Your task to perform on an android device: turn notification dots on Image 0: 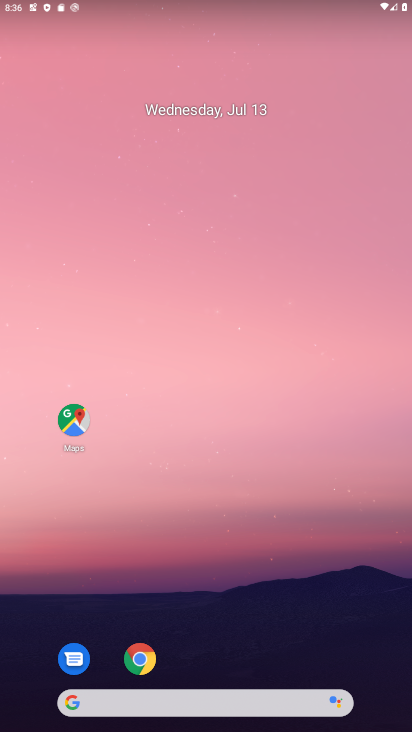
Step 0: drag from (39, 602) to (280, 37)
Your task to perform on an android device: turn notification dots on Image 1: 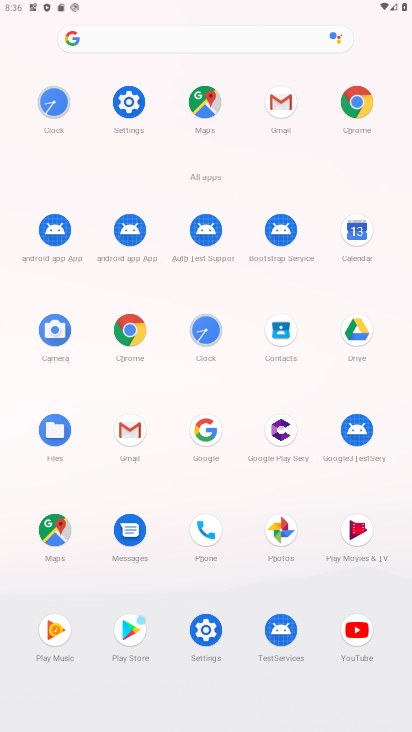
Step 1: click (135, 110)
Your task to perform on an android device: turn notification dots on Image 2: 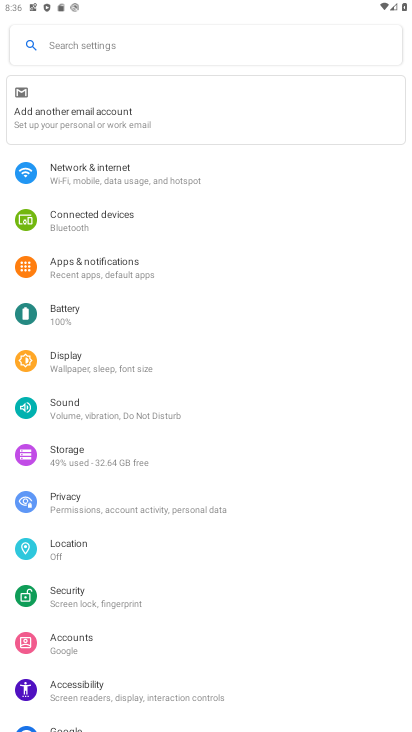
Step 2: click (94, 283)
Your task to perform on an android device: turn notification dots on Image 3: 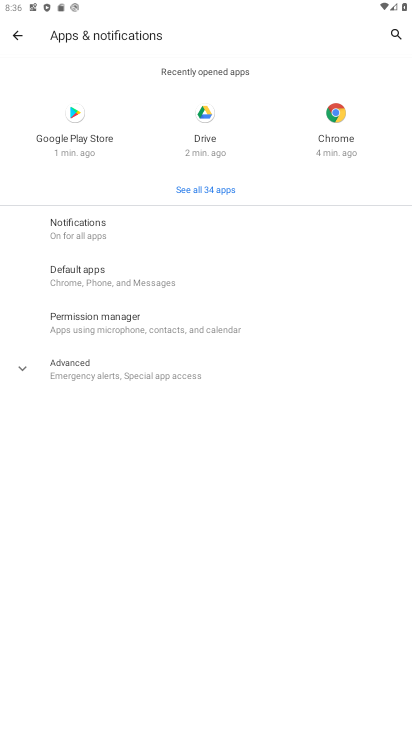
Step 3: click (90, 249)
Your task to perform on an android device: turn notification dots on Image 4: 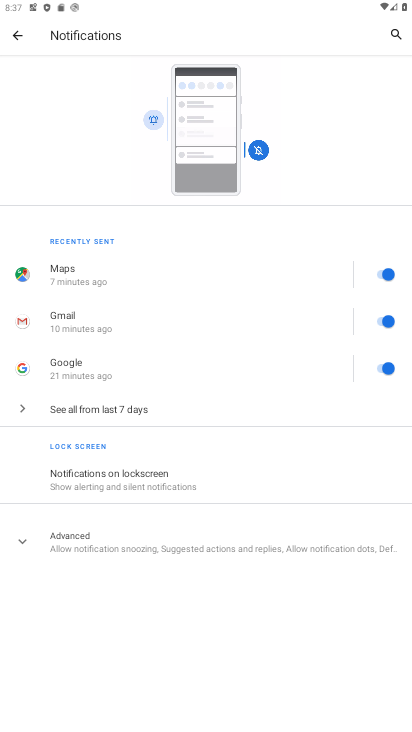
Step 4: task complete